Your task to perform on an android device: change the clock display to show seconds Image 0: 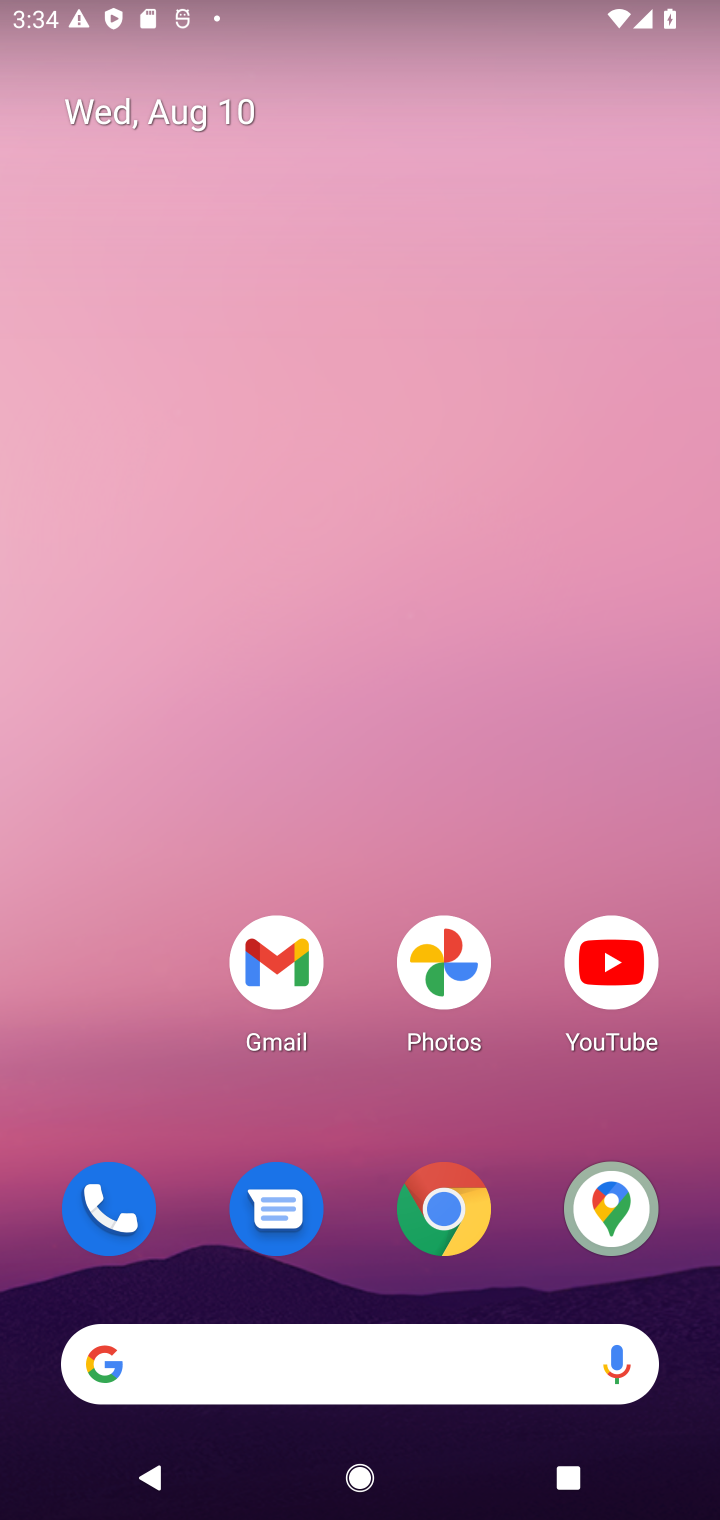
Step 0: drag from (375, 849) to (366, 77)
Your task to perform on an android device: change the clock display to show seconds Image 1: 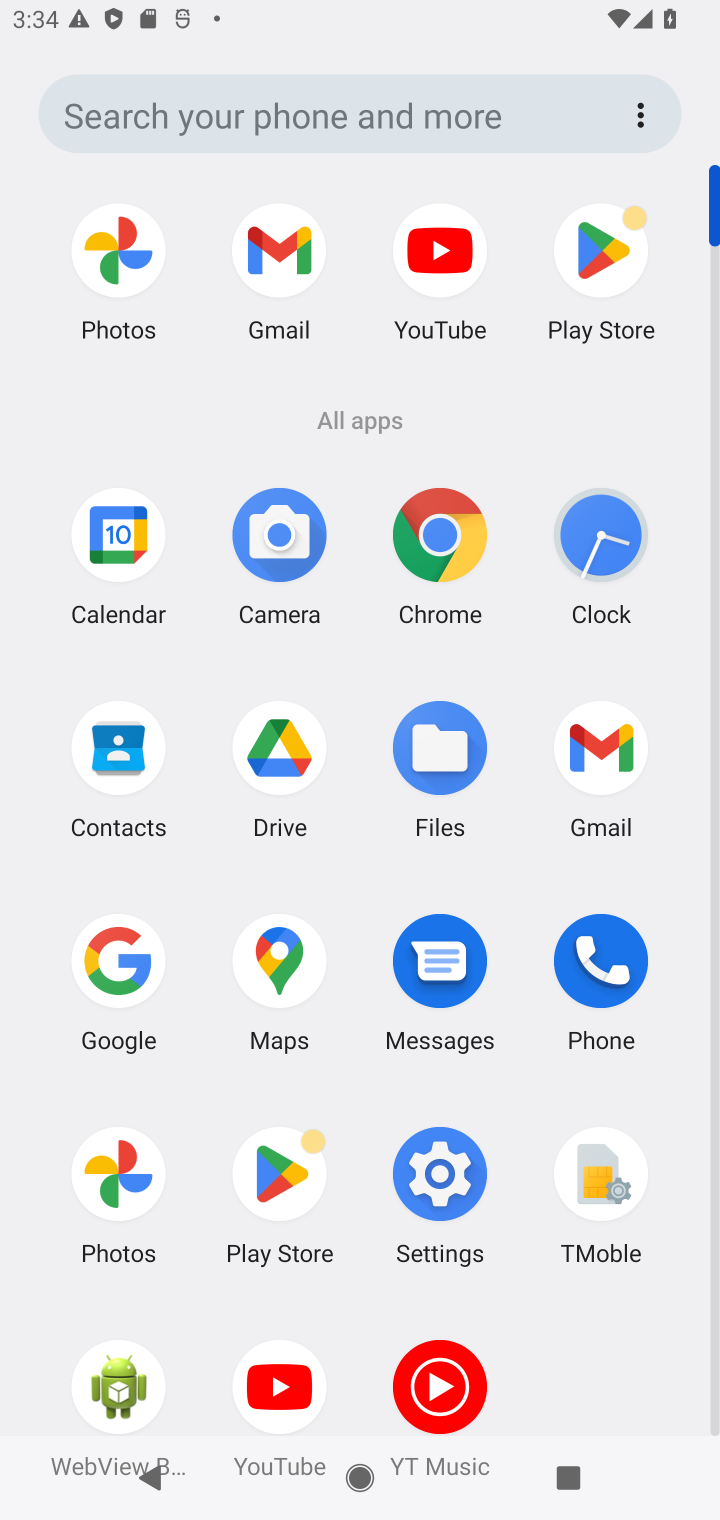
Step 1: click (611, 515)
Your task to perform on an android device: change the clock display to show seconds Image 2: 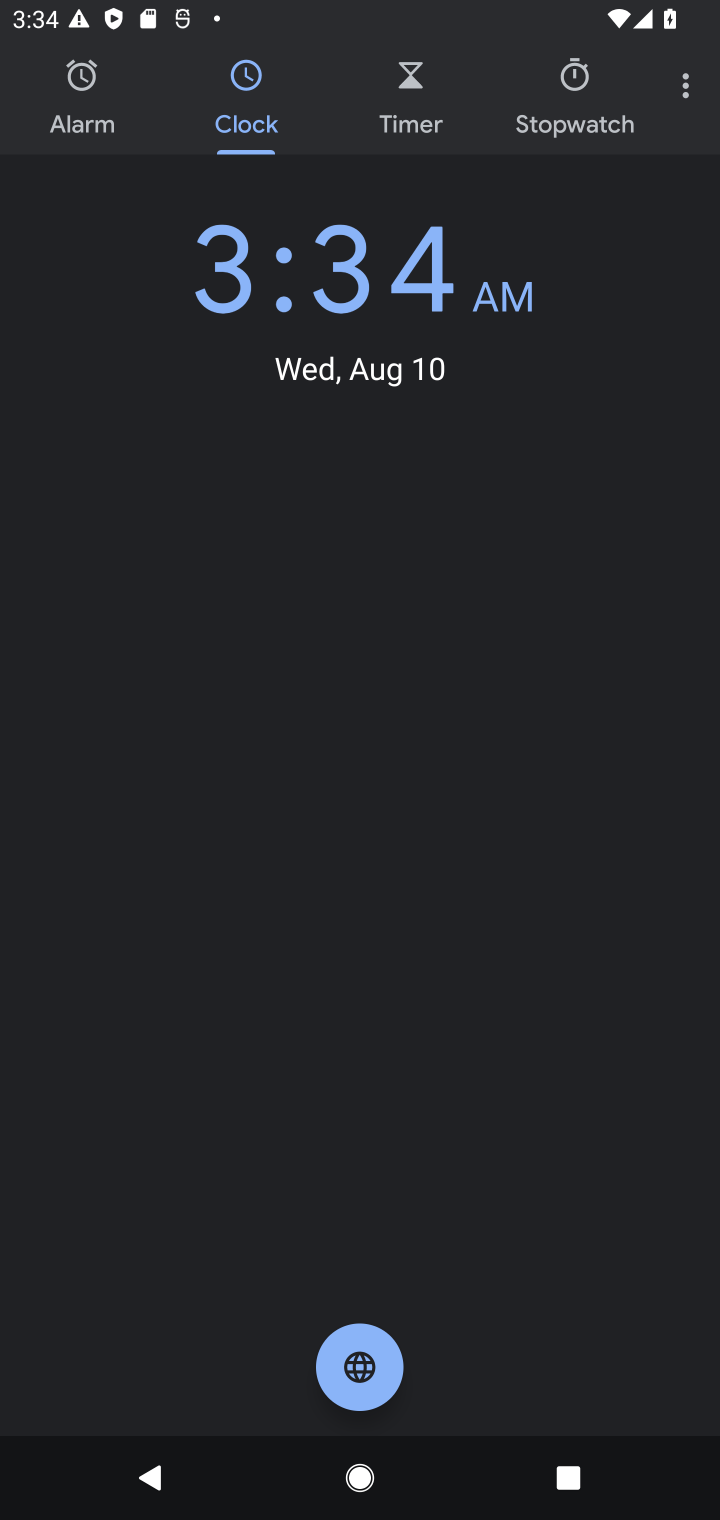
Step 2: click (707, 101)
Your task to perform on an android device: change the clock display to show seconds Image 3: 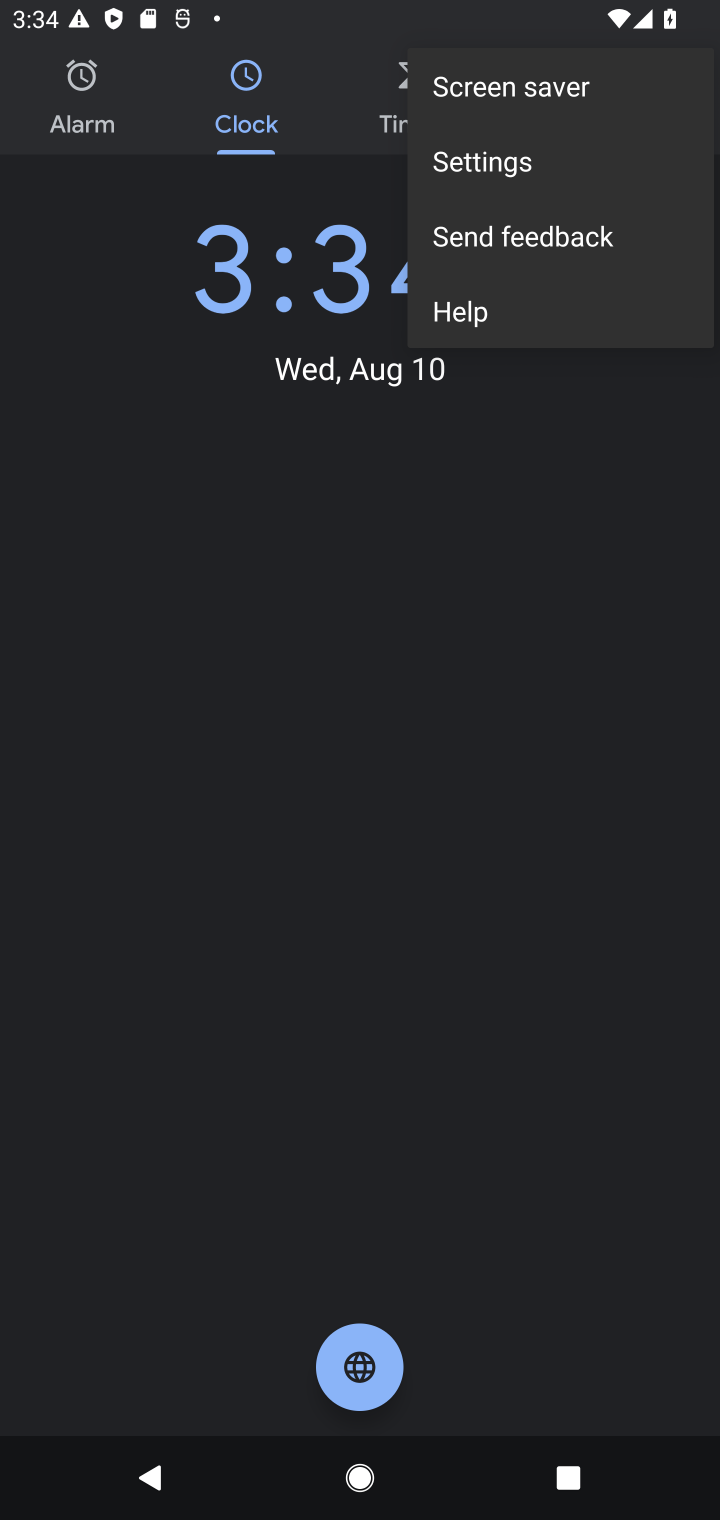
Step 3: click (566, 160)
Your task to perform on an android device: change the clock display to show seconds Image 4: 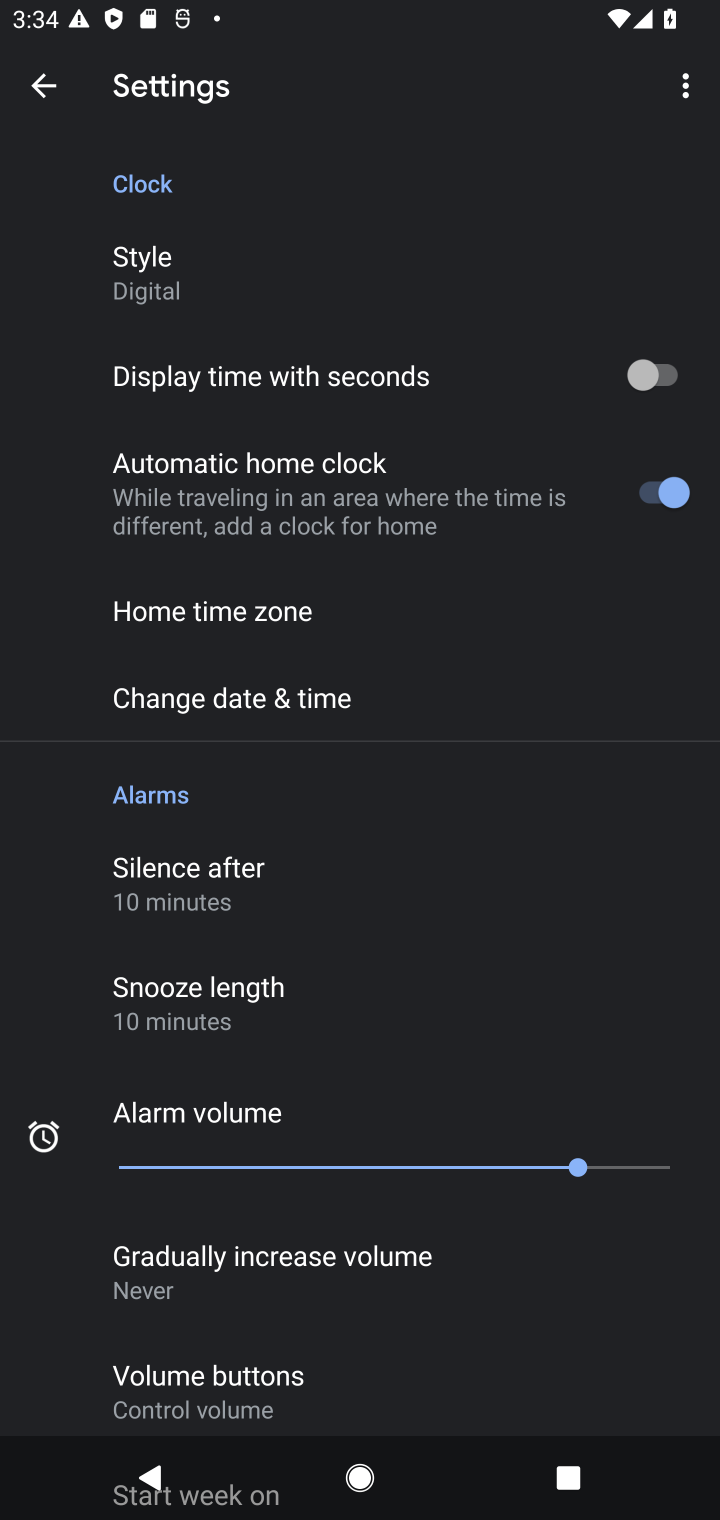
Step 4: click (658, 382)
Your task to perform on an android device: change the clock display to show seconds Image 5: 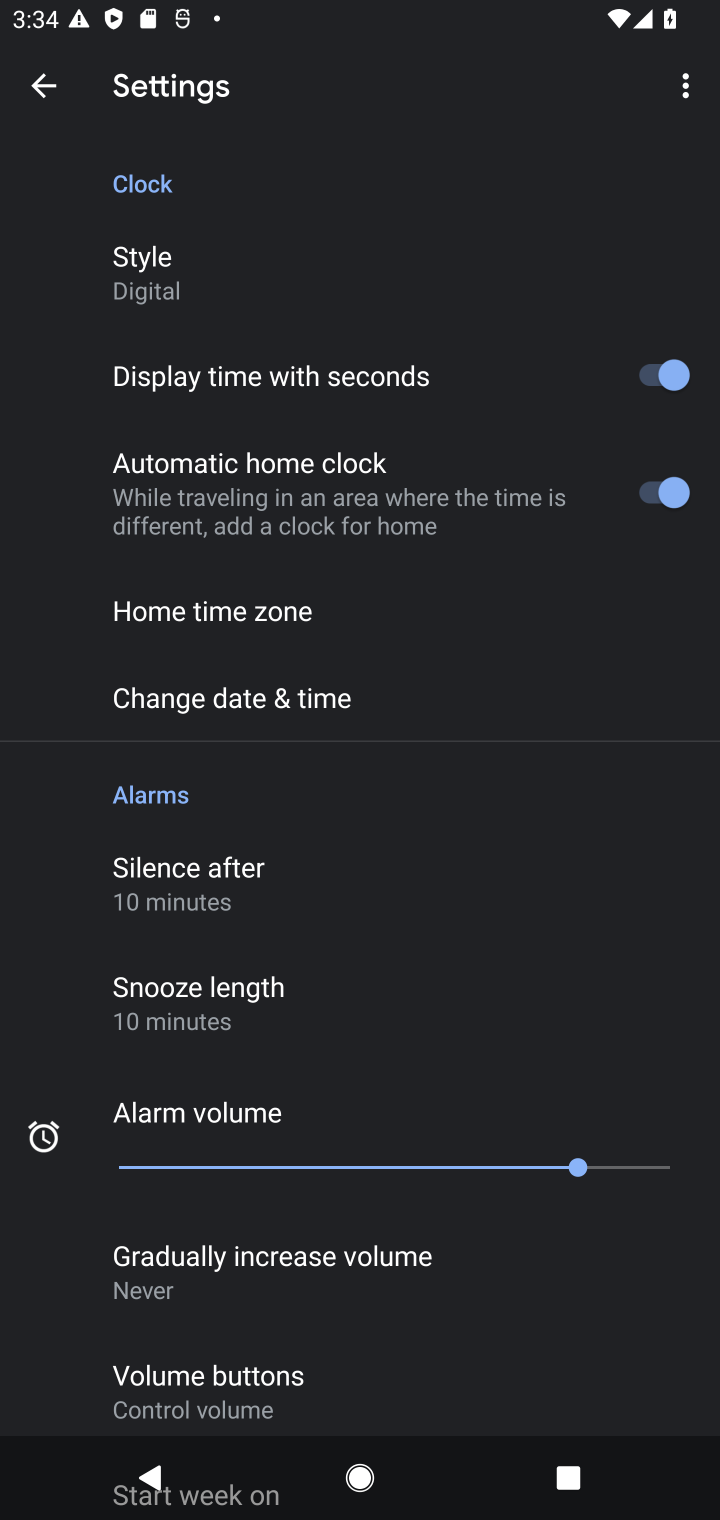
Step 5: task complete